Your task to perform on an android device: Open Chrome and go to the settings page Image 0: 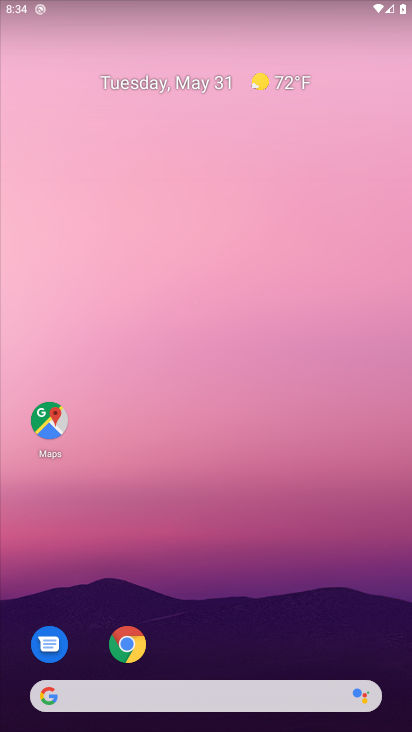
Step 0: press home button
Your task to perform on an android device: Open Chrome and go to the settings page Image 1: 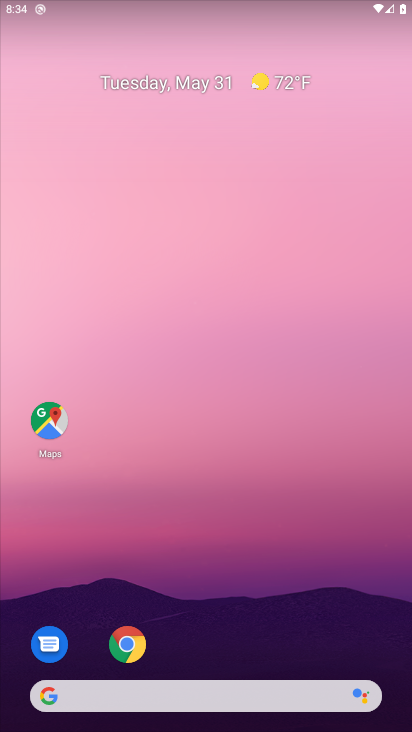
Step 1: click (125, 640)
Your task to perform on an android device: Open Chrome and go to the settings page Image 2: 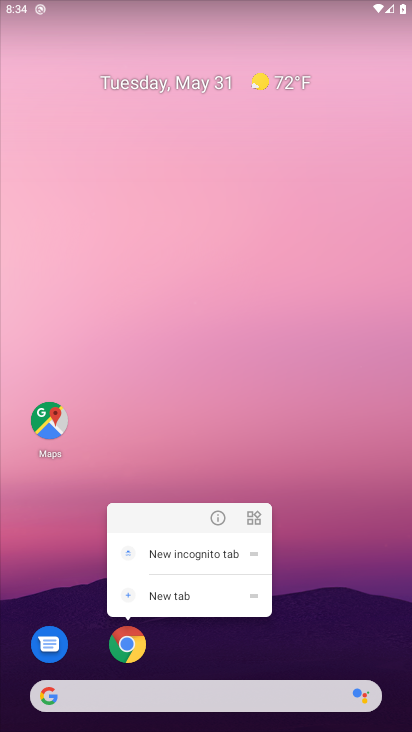
Step 2: click (123, 638)
Your task to perform on an android device: Open Chrome and go to the settings page Image 3: 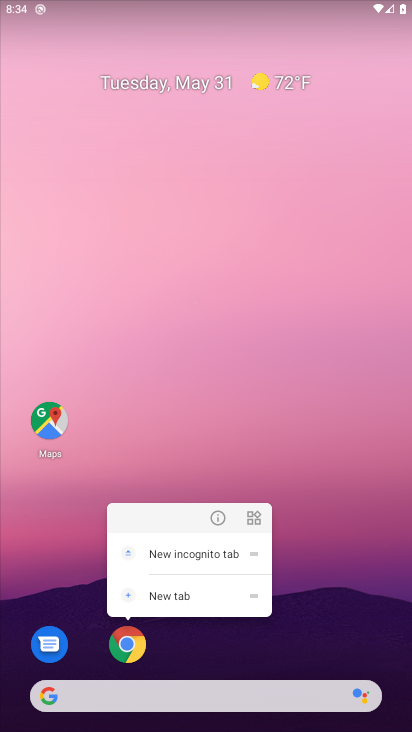
Step 3: click (123, 639)
Your task to perform on an android device: Open Chrome and go to the settings page Image 4: 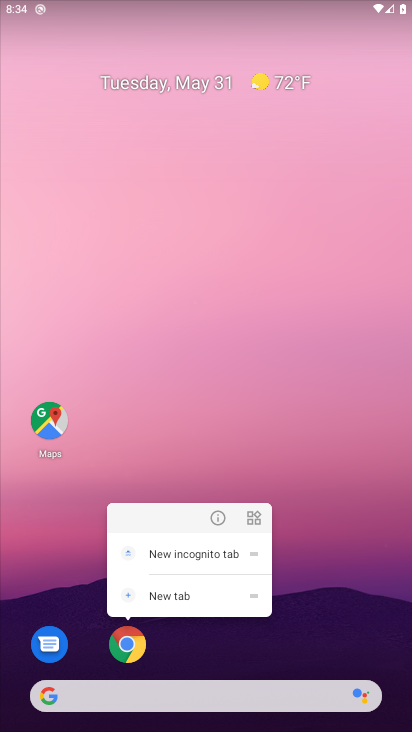
Step 4: click (125, 640)
Your task to perform on an android device: Open Chrome and go to the settings page Image 5: 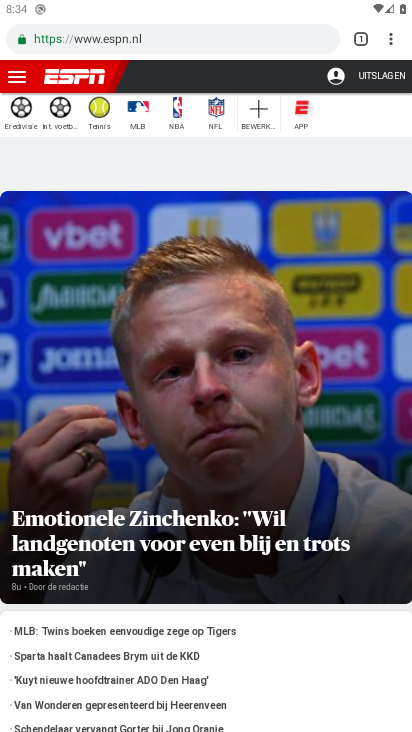
Step 5: click (389, 37)
Your task to perform on an android device: Open Chrome and go to the settings page Image 6: 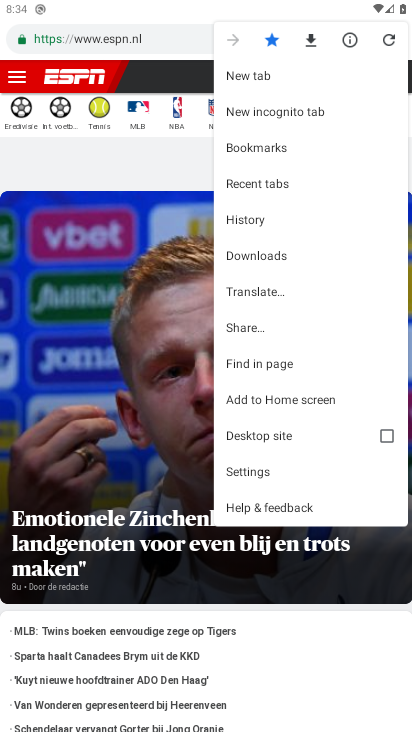
Step 6: click (273, 470)
Your task to perform on an android device: Open Chrome and go to the settings page Image 7: 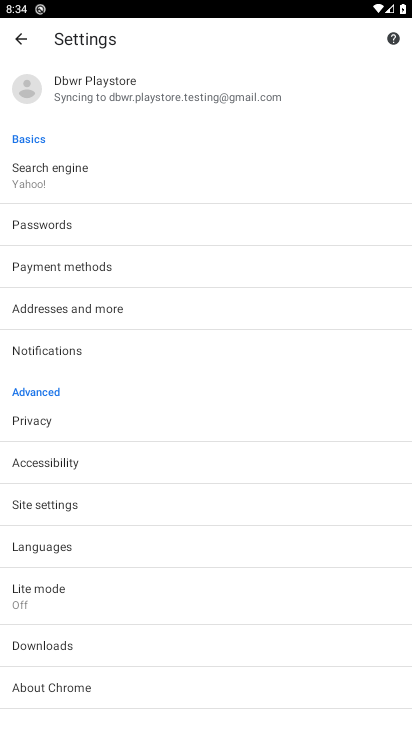
Step 7: task complete